Your task to perform on an android device: Is it going to rain this weekend? Image 0: 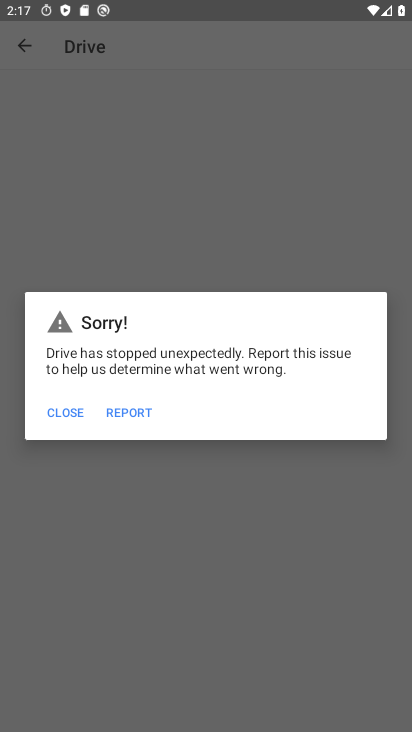
Step 0: press home button
Your task to perform on an android device: Is it going to rain this weekend? Image 1: 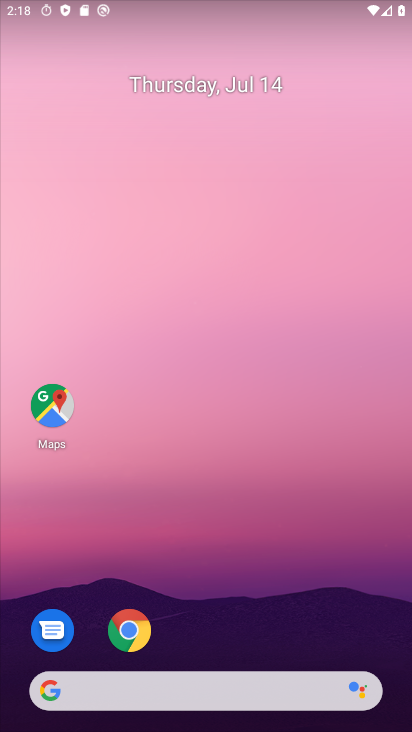
Step 1: click (194, 689)
Your task to perform on an android device: Is it going to rain this weekend? Image 2: 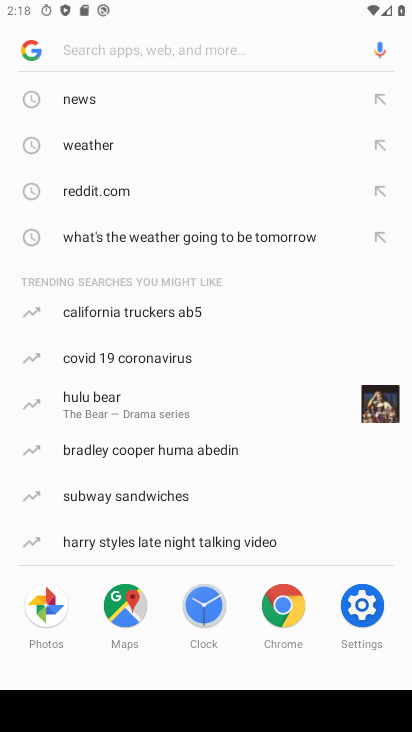
Step 2: type "is it going to rain this weekend?"
Your task to perform on an android device: Is it going to rain this weekend? Image 3: 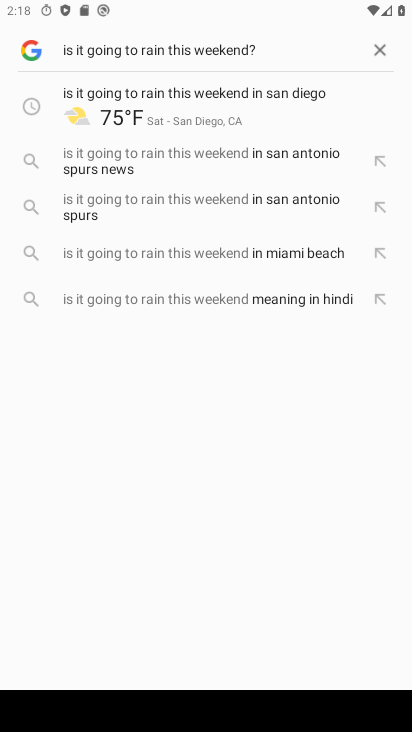
Step 3: click (159, 109)
Your task to perform on an android device: Is it going to rain this weekend? Image 4: 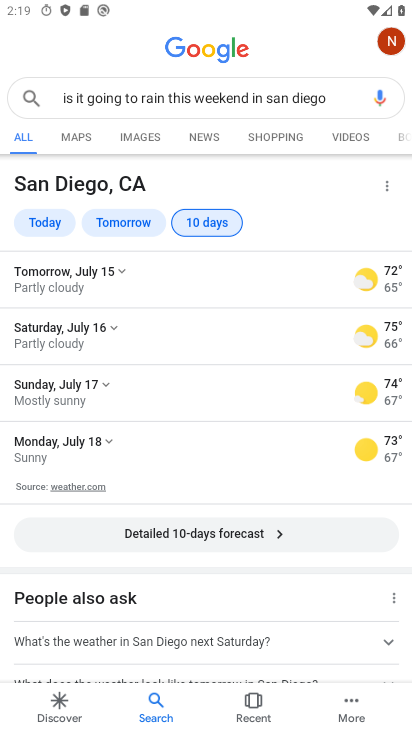
Step 4: task complete